Your task to perform on an android device: Open internet settings Image 0: 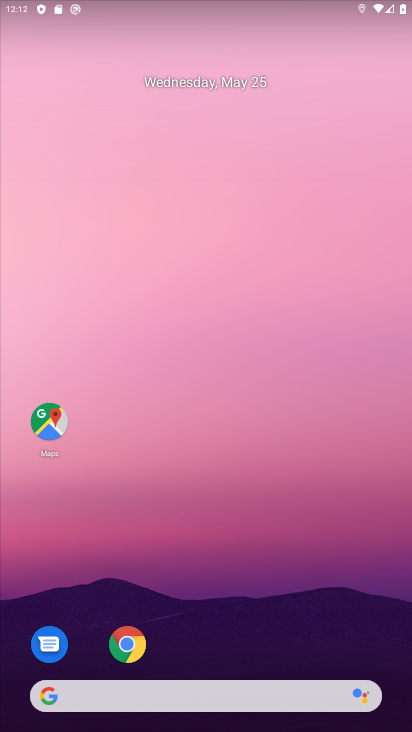
Step 0: drag from (305, 625) to (190, 106)
Your task to perform on an android device: Open internet settings Image 1: 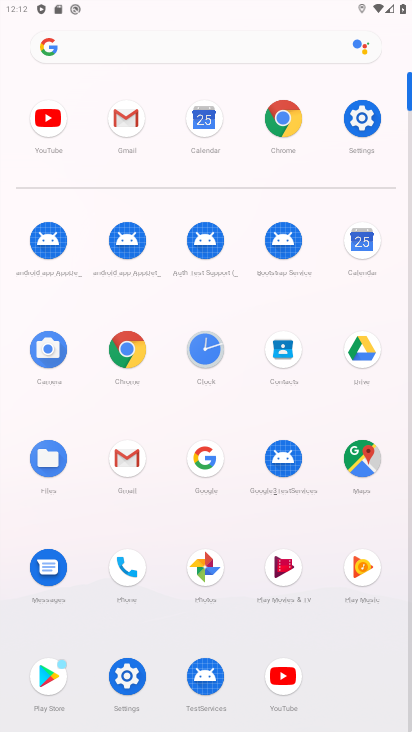
Step 1: click (368, 110)
Your task to perform on an android device: Open internet settings Image 2: 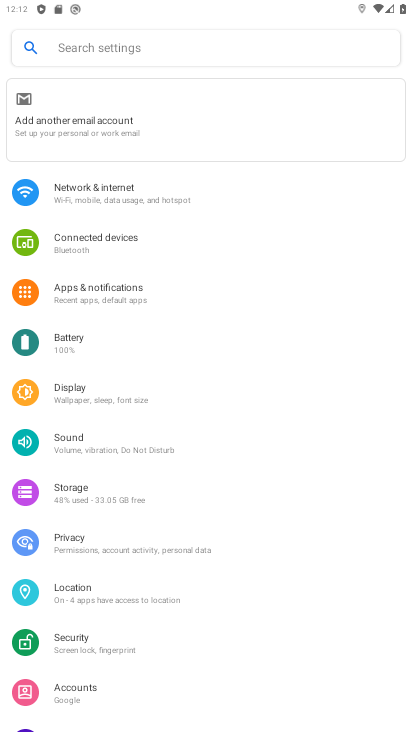
Step 2: click (96, 198)
Your task to perform on an android device: Open internet settings Image 3: 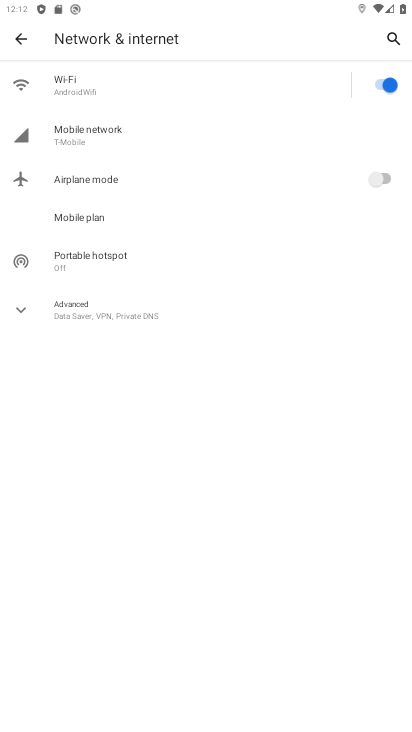
Step 3: task complete